Your task to perform on an android device: change text size in settings app Image 0: 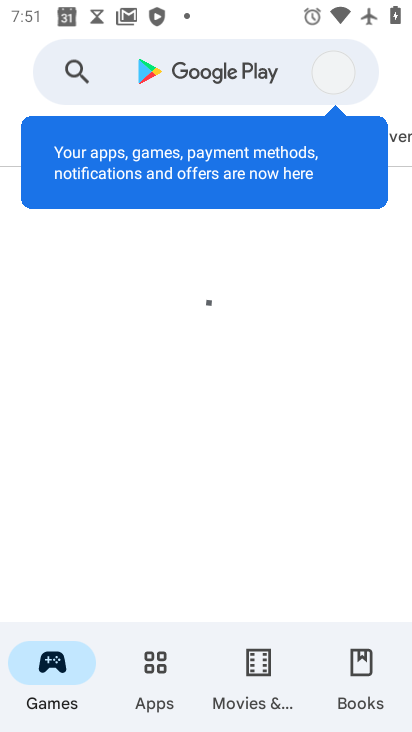
Step 0: press home button
Your task to perform on an android device: change text size in settings app Image 1: 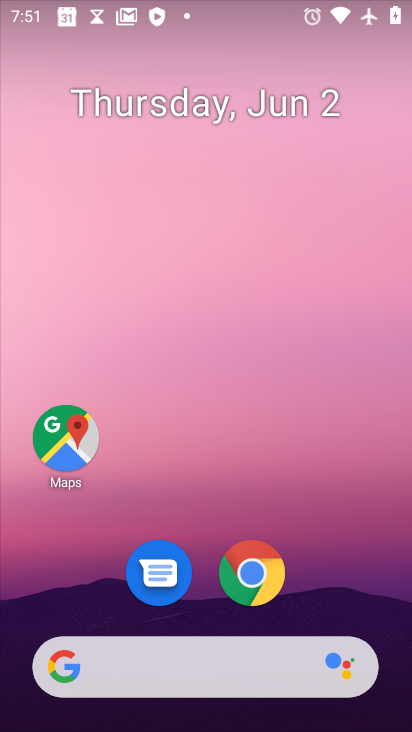
Step 1: drag from (213, 664) to (362, 66)
Your task to perform on an android device: change text size in settings app Image 2: 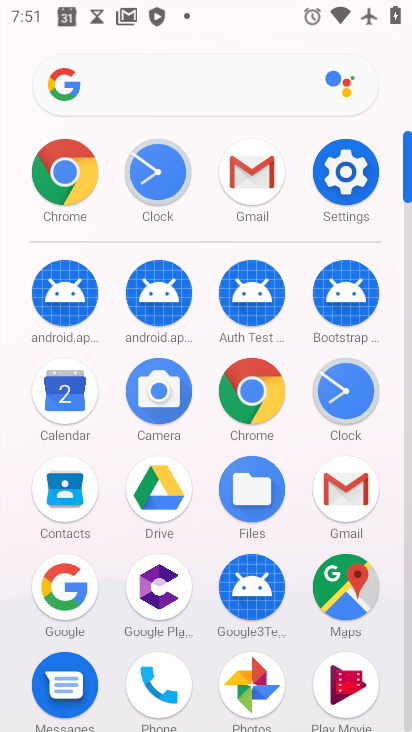
Step 2: click (343, 175)
Your task to perform on an android device: change text size in settings app Image 3: 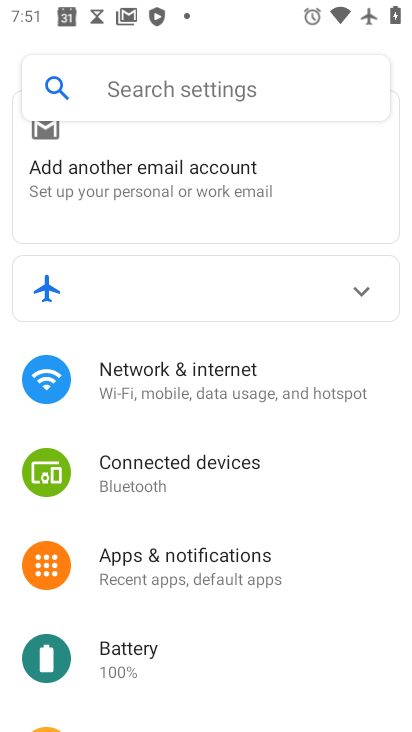
Step 3: drag from (252, 657) to (380, 174)
Your task to perform on an android device: change text size in settings app Image 4: 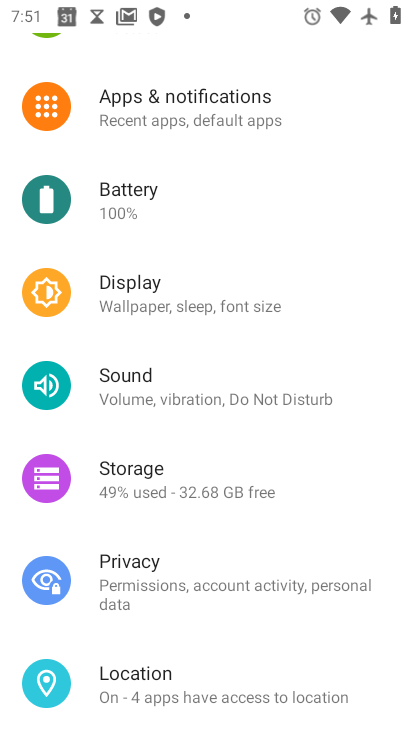
Step 4: click (196, 305)
Your task to perform on an android device: change text size in settings app Image 5: 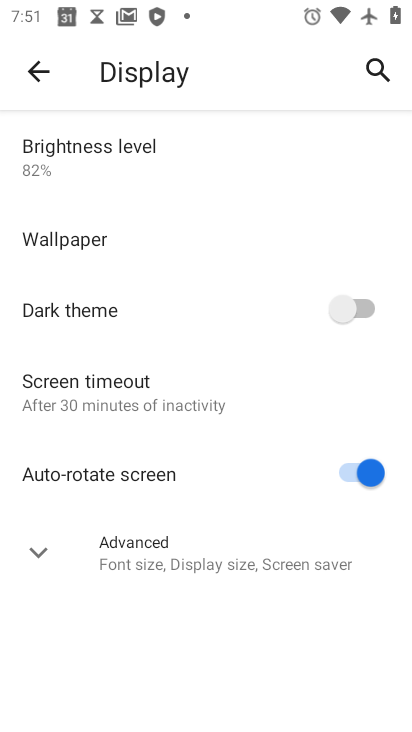
Step 5: click (139, 557)
Your task to perform on an android device: change text size in settings app Image 6: 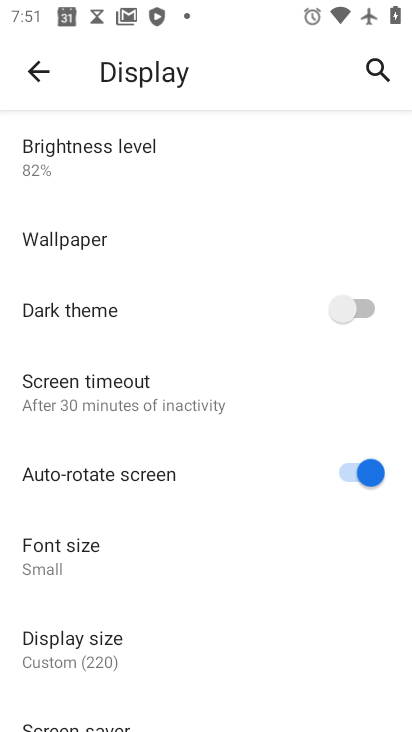
Step 6: click (82, 544)
Your task to perform on an android device: change text size in settings app Image 7: 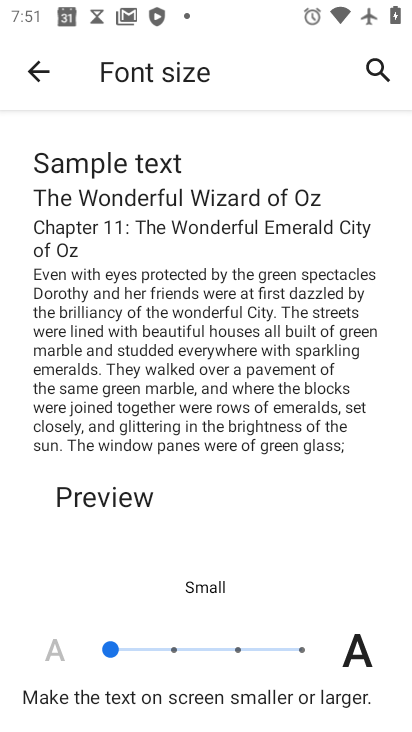
Step 7: click (173, 649)
Your task to perform on an android device: change text size in settings app Image 8: 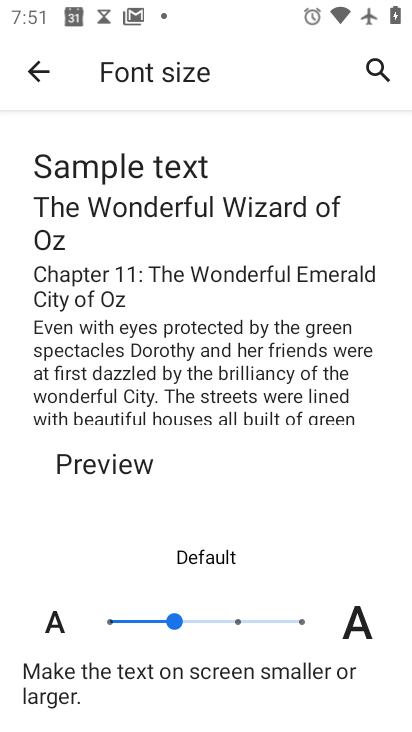
Step 8: task complete